Your task to perform on an android device: Open Google Maps and go to "Timeline" Image 0: 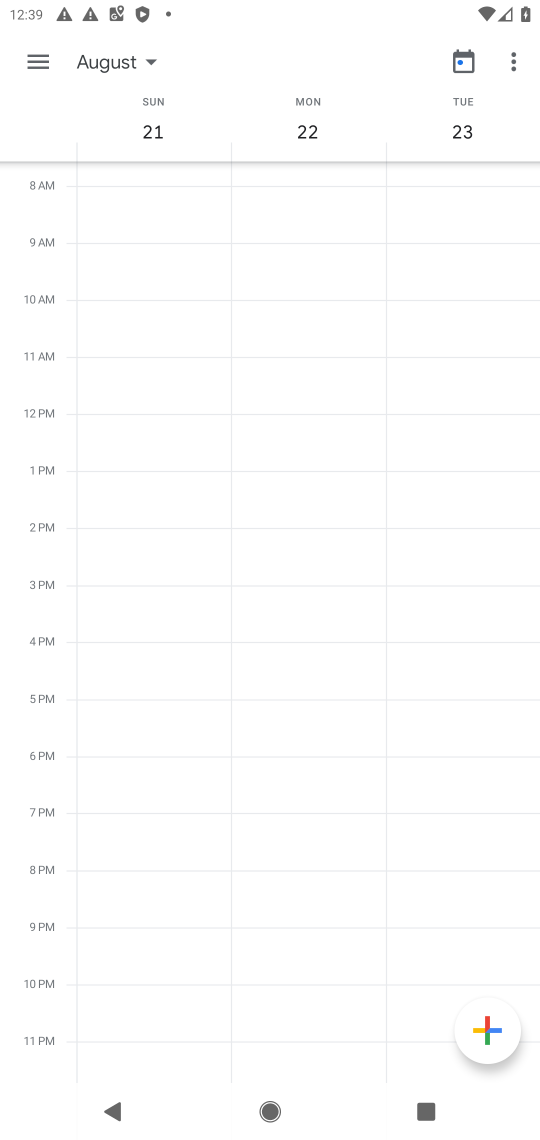
Step 0: press home button
Your task to perform on an android device: Open Google Maps and go to "Timeline" Image 1: 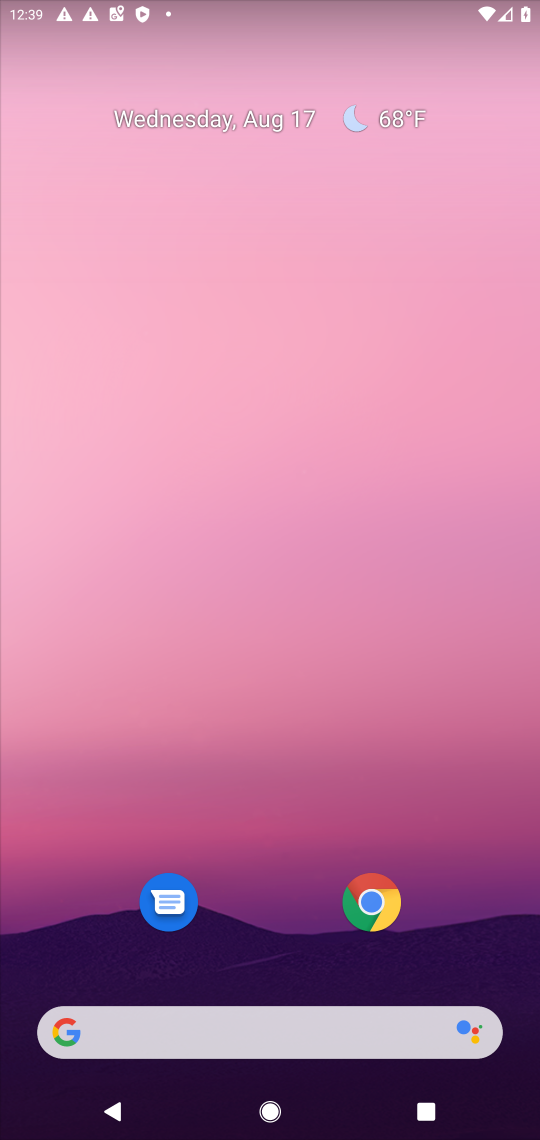
Step 1: drag from (252, 920) to (359, 70)
Your task to perform on an android device: Open Google Maps and go to "Timeline" Image 2: 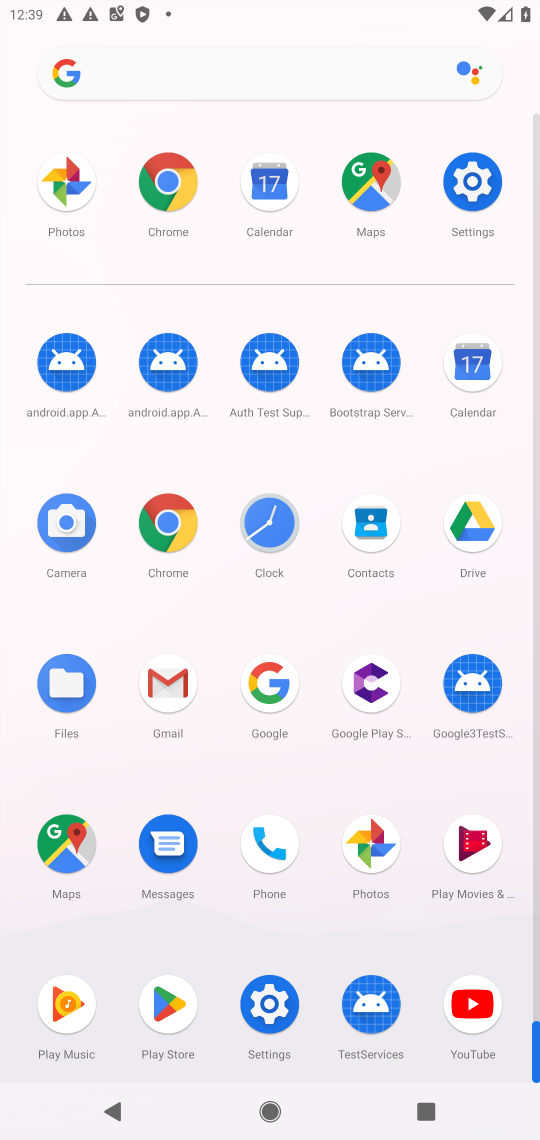
Step 2: click (72, 853)
Your task to perform on an android device: Open Google Maps and go to "Timeline" Image 3: 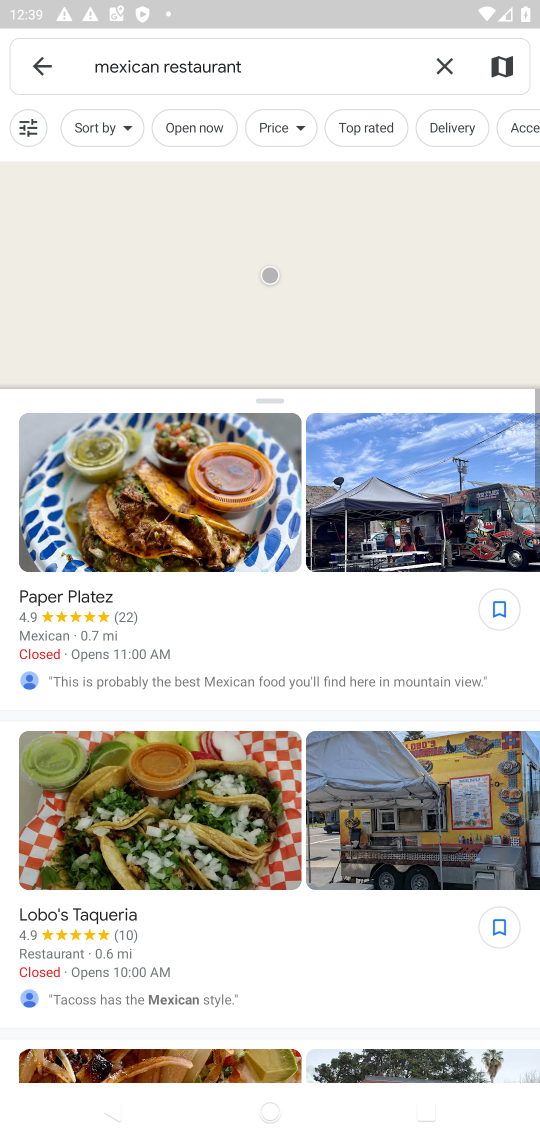
Step 3: click (37, 67)
Your task to perform on an android device: Open Google Maps and go to "Timeline" Image 4: 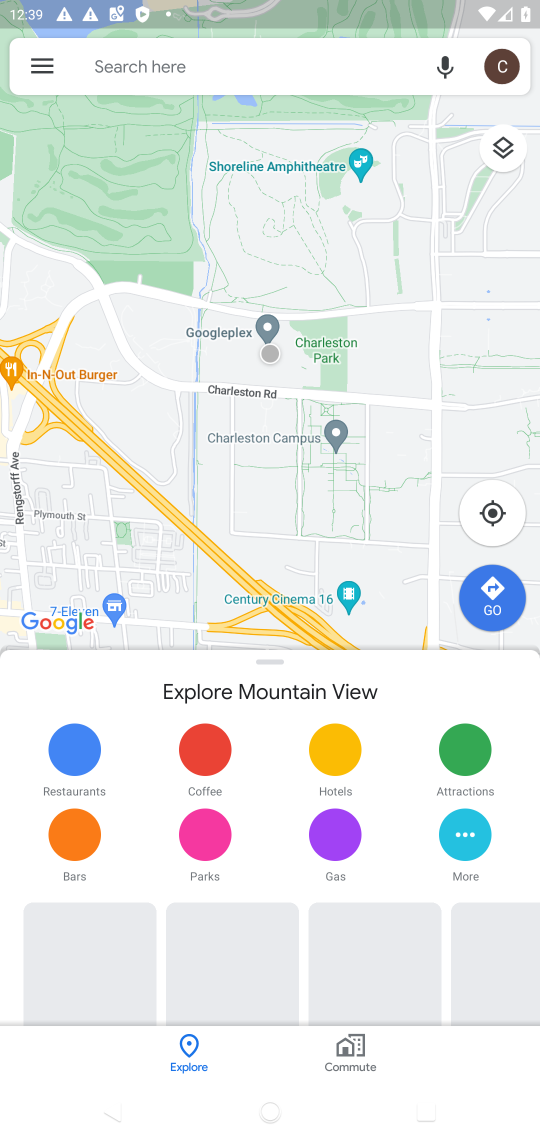
Step 4: click (35, 66)
Your task to perform on an android device: Open Google Maps and go to "Timeline" Image 5: 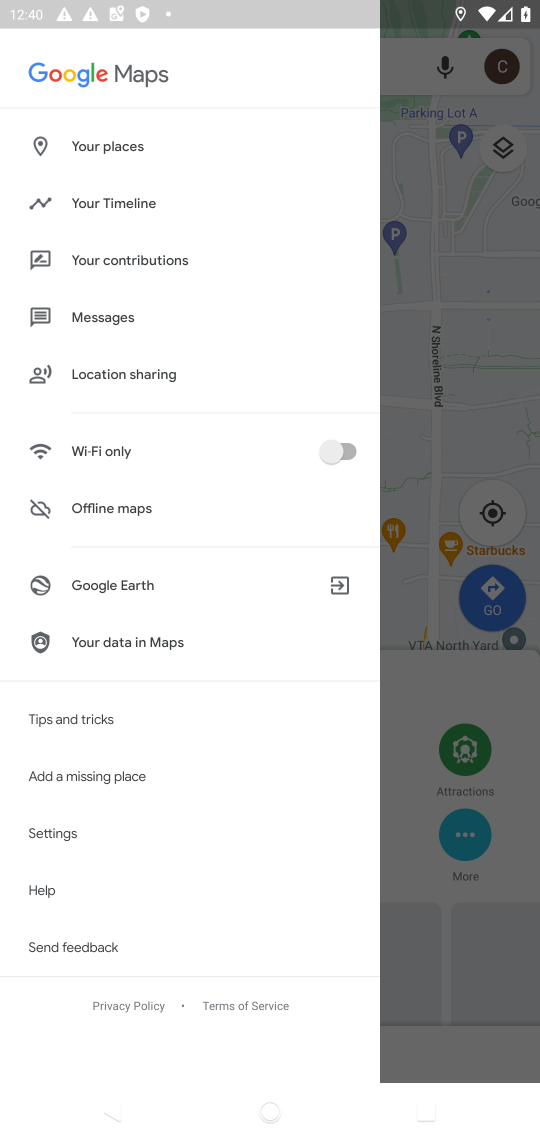
Step 5: click (136, 212)
Your task to perform on an android device: Open Google Maps and go to "Timeline" Image 6: 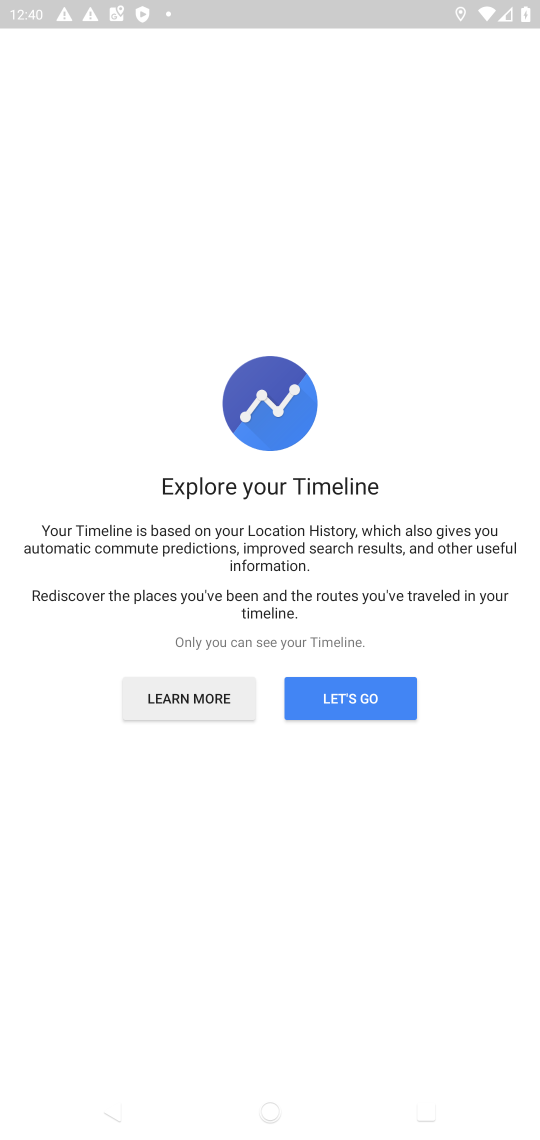
Step 6: click (360, 689)
Your task to perform on an android device: Open Google Maps and go to "Timeline" Image 7: 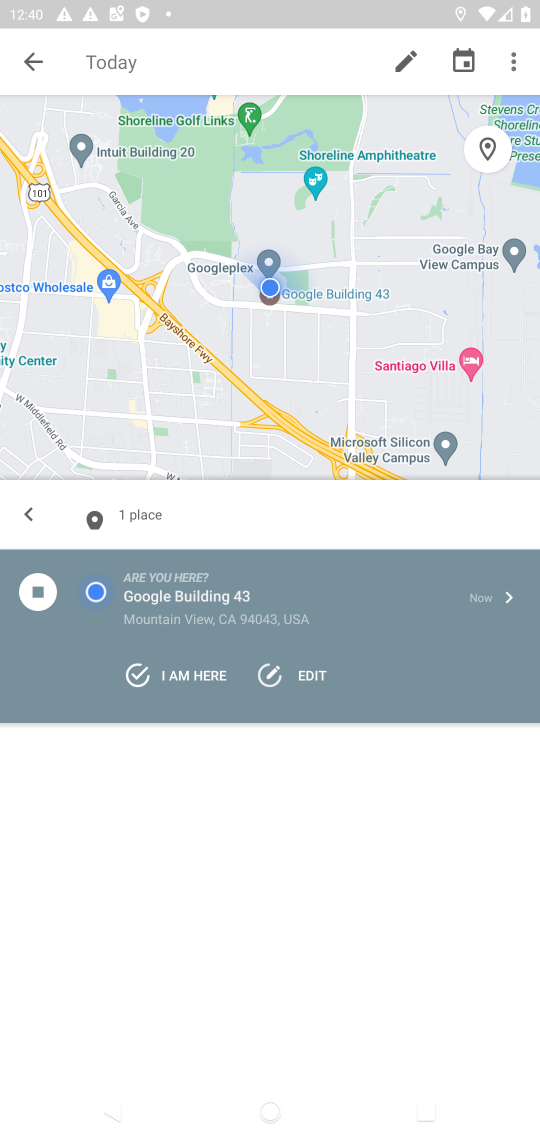
Step 7: task complete